Your task to perform on an android device: Open Google Chrome Image 0: 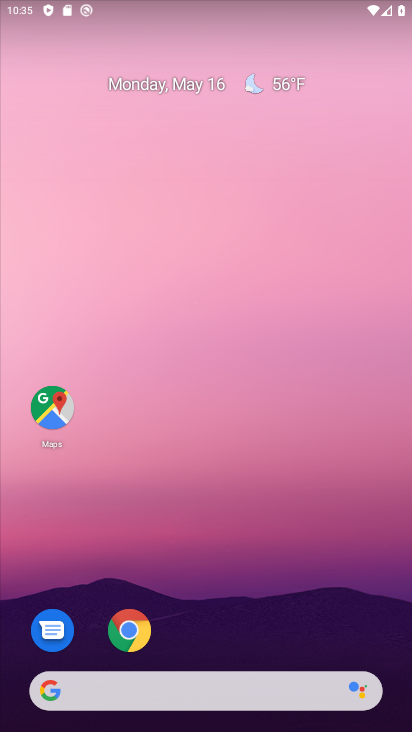
Step 0: click (132, 615)
Your task to perform on an android device: Open Google Chrome Image 1: 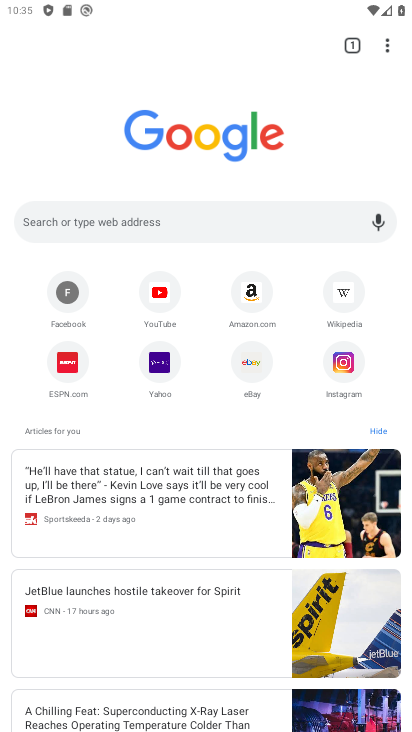
Step 1: task complete